Your task to perform on an android device: Open the web browser Image 0: 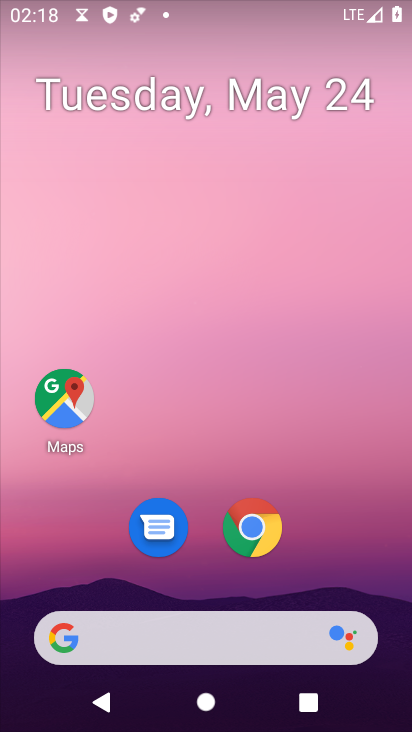
Step 0: click (250, 536)
Your task to perform on an android device: Open the web browser Image 1: 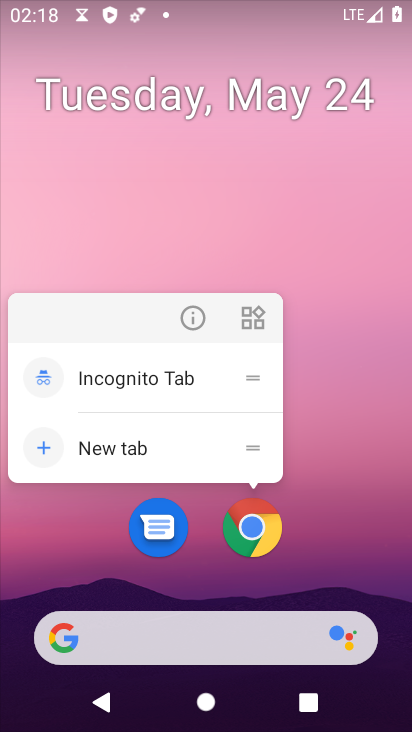
Step 1: click (280, 520)
Your task to perform on an android device: Open the web browser Image 2: 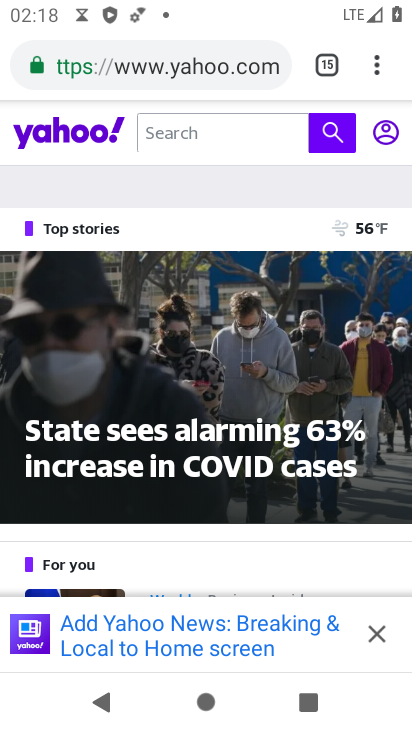
Step 2: task complete